Your task to perform on an android device: Clear the shopping cart on walmart. Image 0: 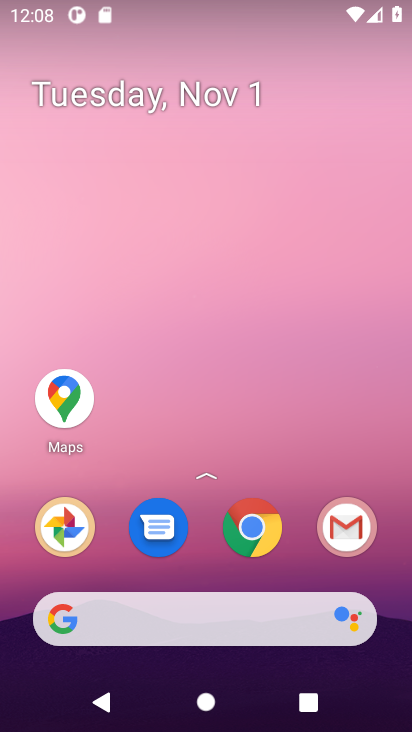
Step 0: click (243, 530)
Your task to perform on an android device: Clear the shopping cart on walmart. Image 1: 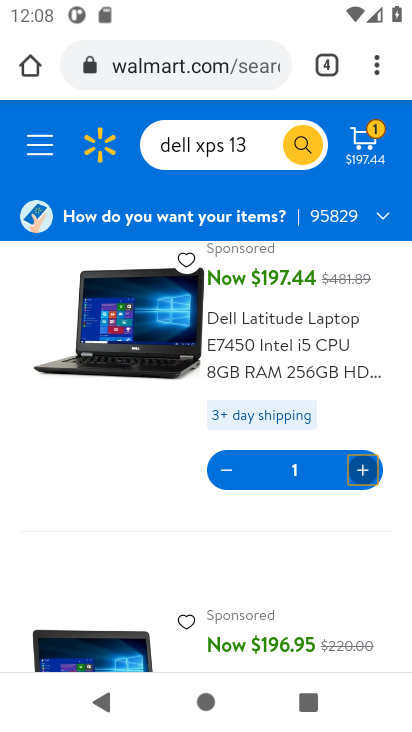
Step 1: click (372, 142)
Your task to perform on an android device: Clear the shopping cart on walmart. Image 2: 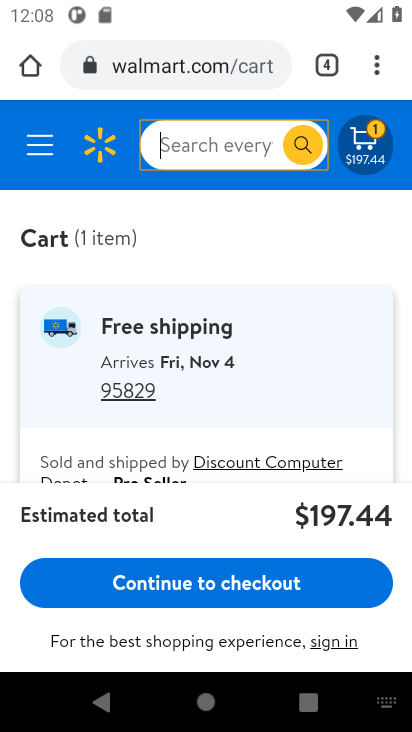
Step 2: drag from (176, 439) to (181, 160)
Your task to perform on an android device: Clear the shopping cart on walmart. Image 3: 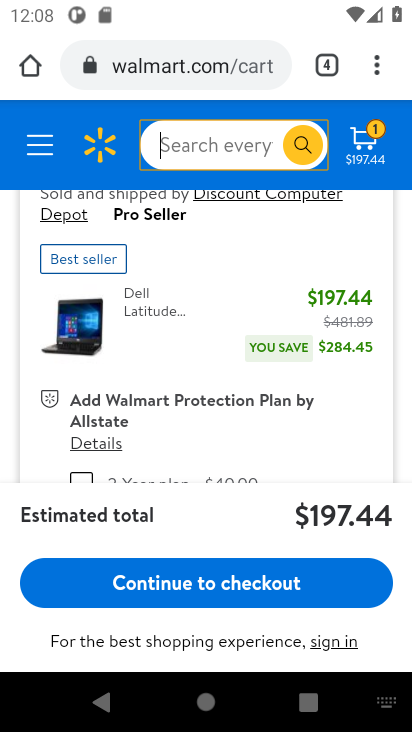
Step 3: drag from (183, 419) to (186, 212)
Your task to perform on an android device: Clear the shopping cart on walmart. Image 4: 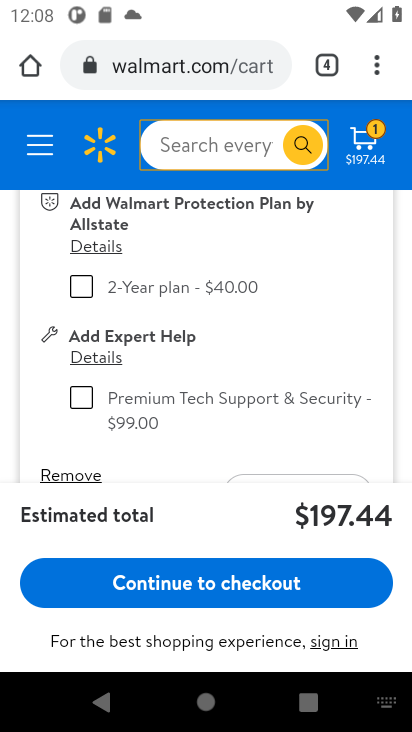
Step 4: drag from (188, 460) to (193, 234)
Your task to perform on an android device: Clear the shopping cart on walmart. Image 5: 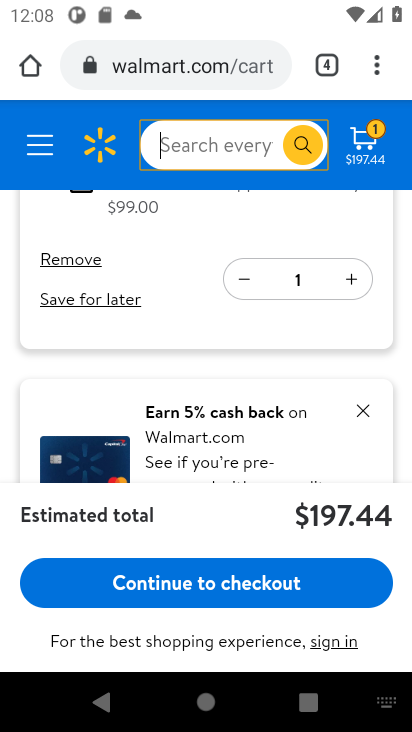
Step 5: click (58, 266)
Your task to perform on an android device: Clear the shopping cart on walmart. Image 6: 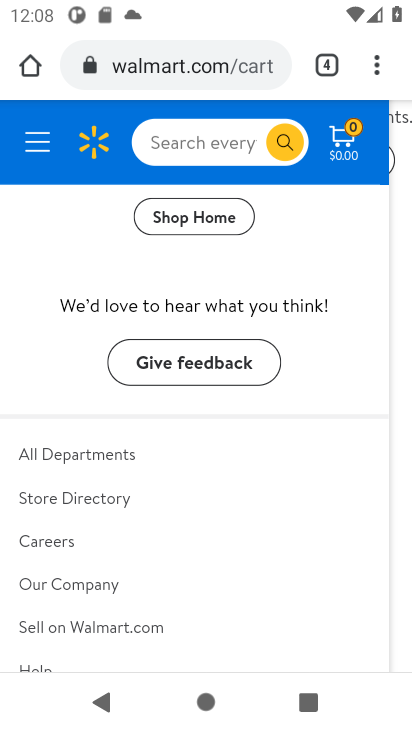
Step 6: task complete